Your task to perform on an android device: Open the calendar and show me this week's events? Image 0: 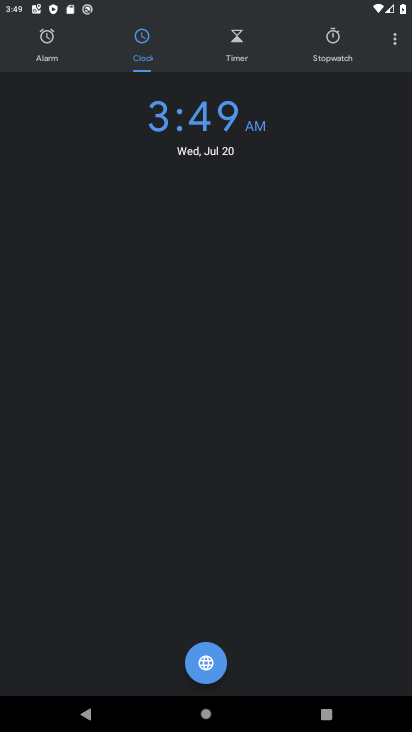
Step 0: press home button
Your task to perform on an android device: Open the calendar and show me this week's events? Image 1: 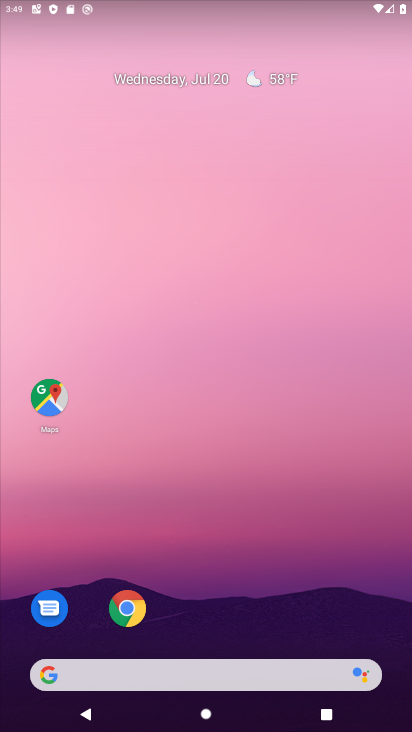
Step 1: drag from (233, 615) to (240, 85)
Your task to perform on an android device: Open the calendar and show me this week's events? Image 2: 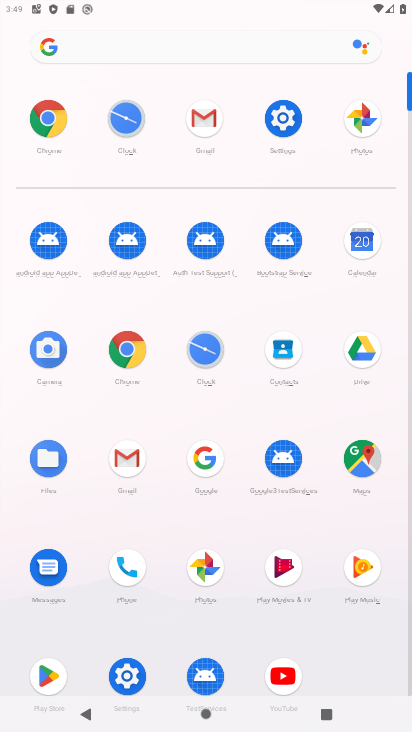
Step 2: click (349, 231)
Your task to perform on an android device: Open the calendar and show me this week's events? Image 3: 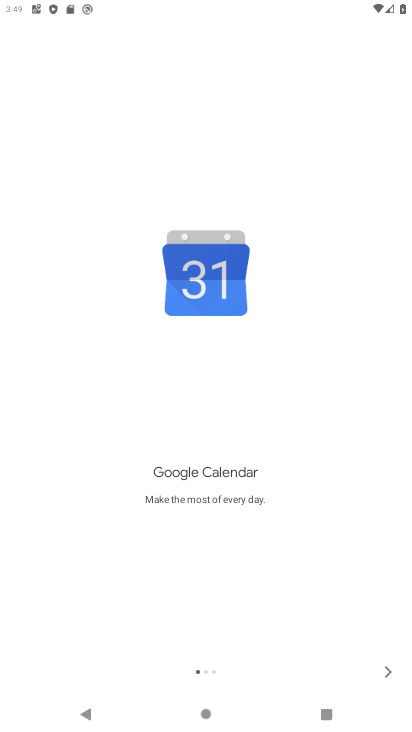
Step 3: task complete